Your task to perform on an android device: Open wifi settings Image 0: 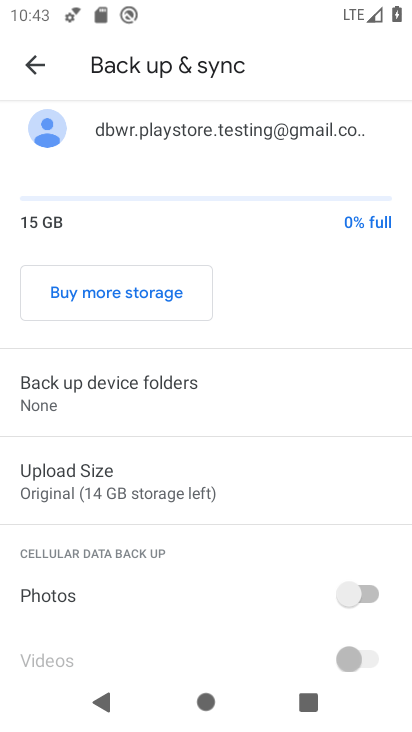
Step 0: press home button
Your task to perform on an android device: Open wifi settings Image 1: 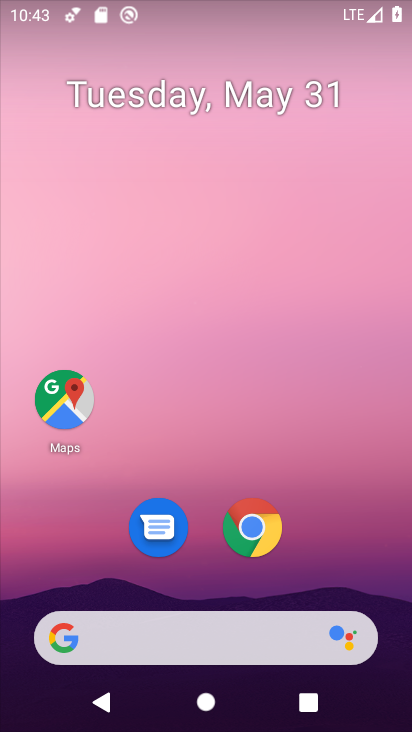
Step 1: drag from (319, 581) to (321, 30)
Your task to perform on an android device: Open wifi settings Image 2: 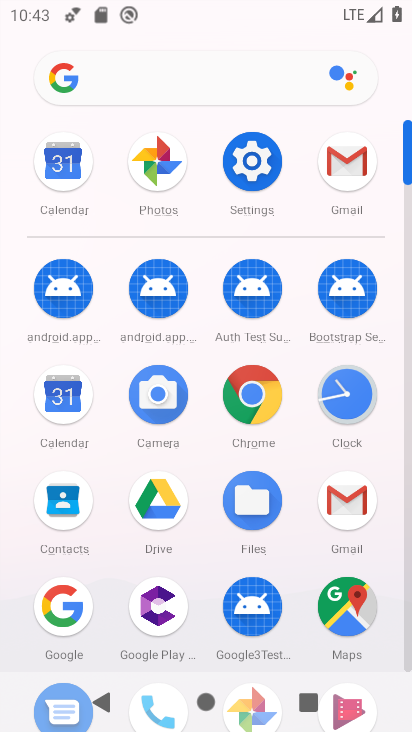
Step 2: click (255, 155)
Your task to perform on an android device: Open wifi settings Image 3: 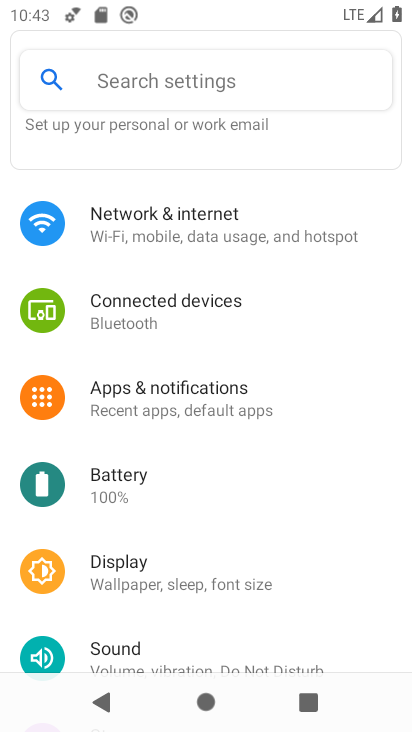
Step 3: click (160, 234)
Your task to perform on an android device: Open wifi settings Image 4: 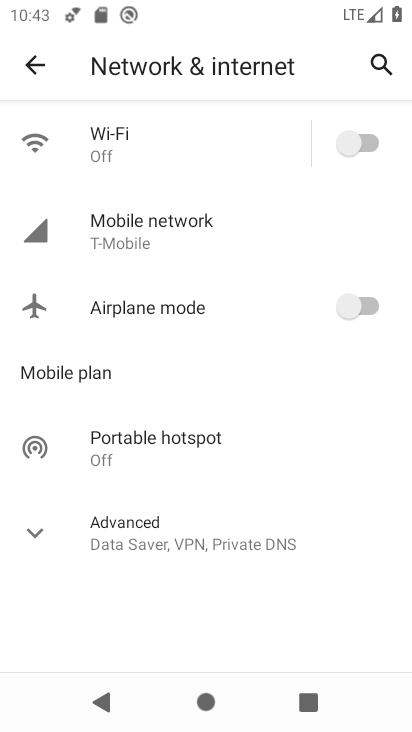
Step 4: click (34, 144)
Your task to perform on an android device: Open wifi settings Image 5: 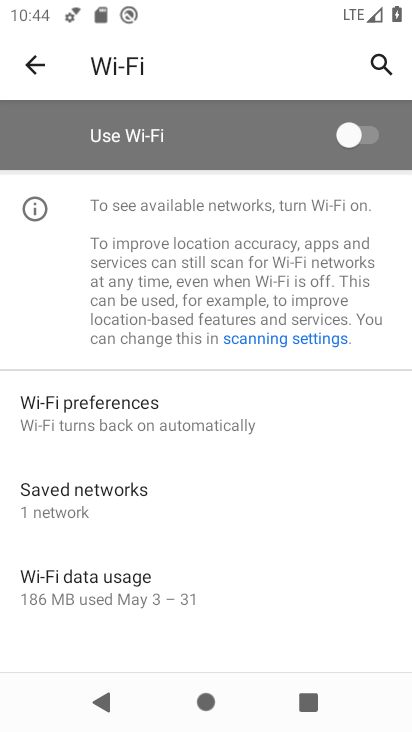
Step 5: task complete